Your task to perform on an android device: set the timer Image 0: 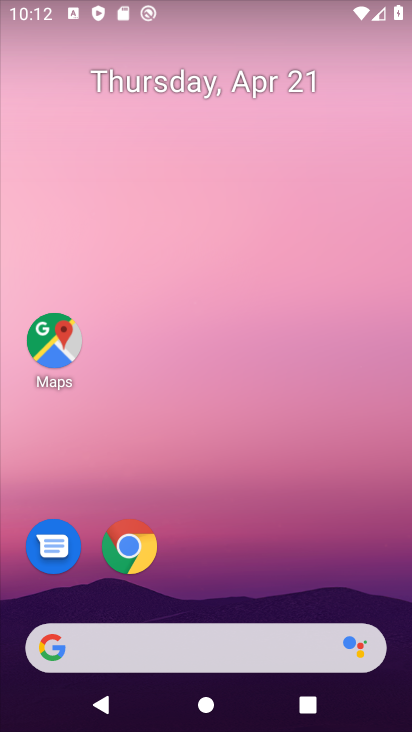
Step 0: drag from (364, 591) to (310, 50)
Your task to perform on an android device: set the timer Image 1: 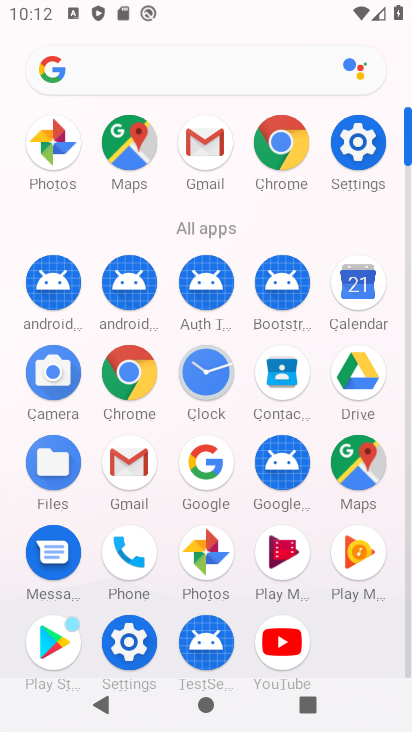
Step 1: click (406, 659)
Your task to perform on an android device: set the timer Image 2: 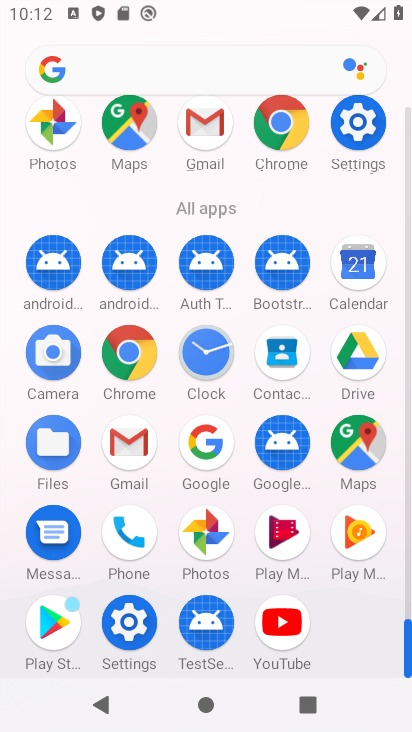
Step 2: click (209, 345)
Your task to perform on an android device: set the timer Image 3: 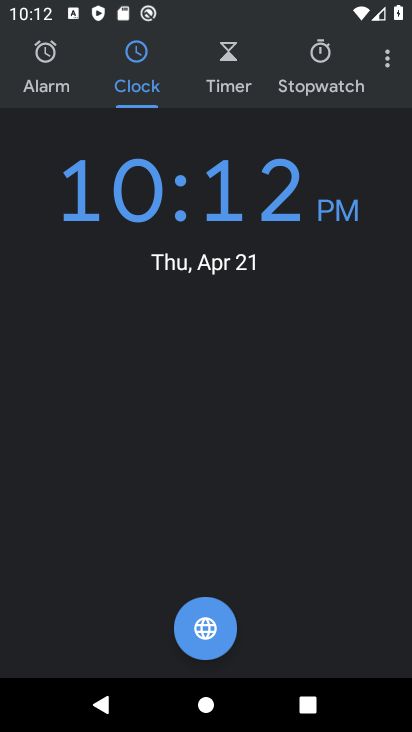
Step 3: click (226, 50)
Your task to perform on an android device: set the timer Image 4: 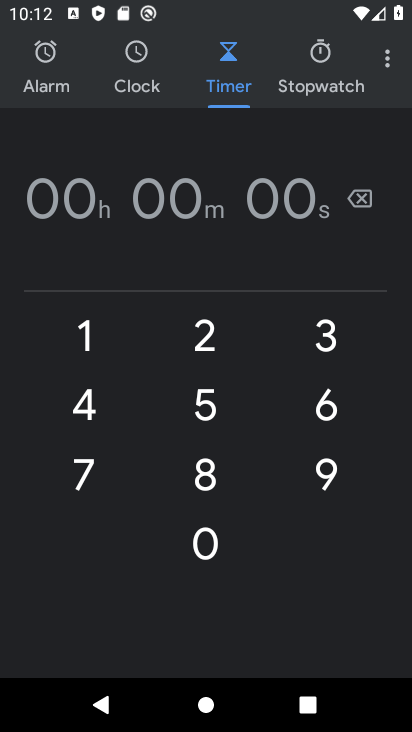
Step 4: click (84, 331)
Your task to perform on an android device: set the timer Image 5: 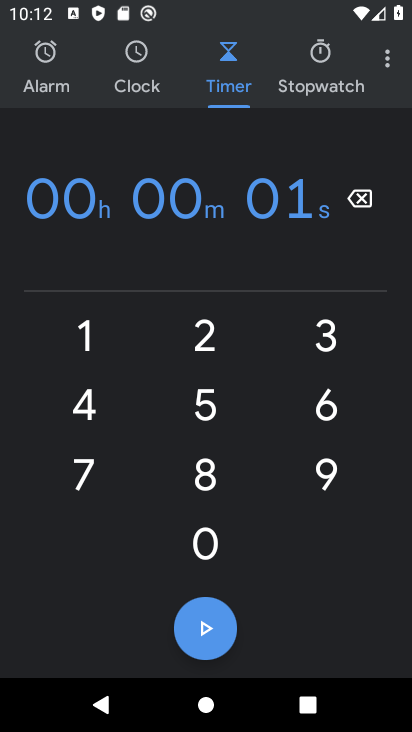
Step 5: click (329, 328)
Your task to perform on an android device: set the timer Image 6: 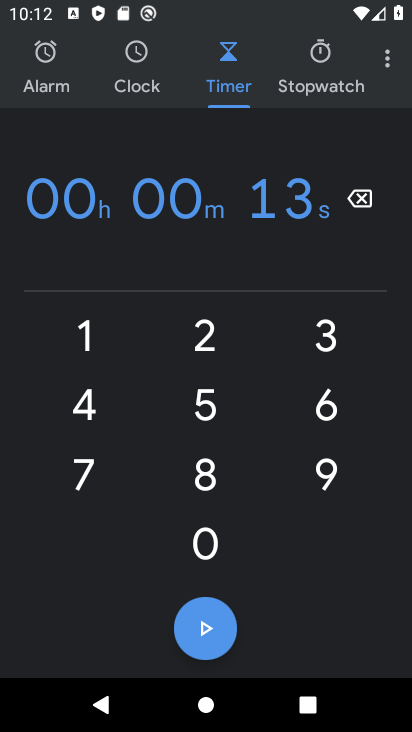
Step 6: click (204, 533)
Your task to perform on an android device: set the timer Image 7: 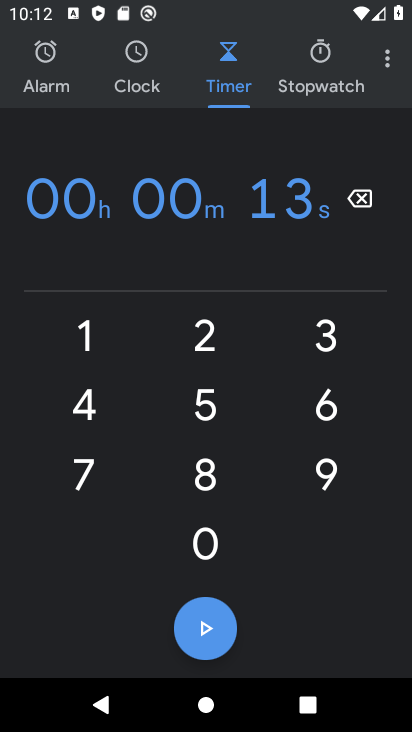
Step 7: click (204, 533)
Your task to perform on an android device: set the timer Image 8: 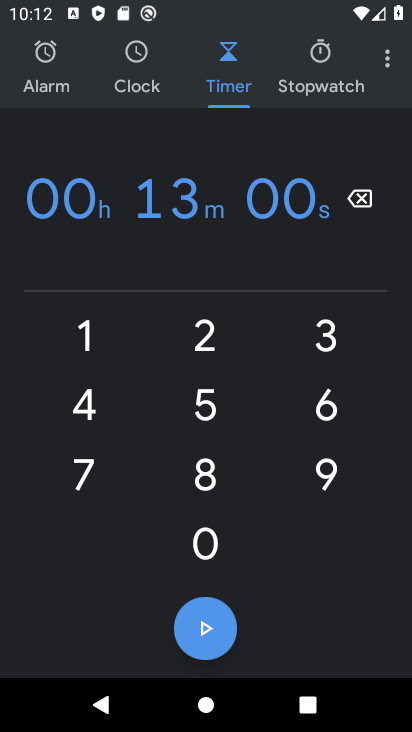
Step 8: click (204, 533)
Your task to perform on an android device: set the timer Image 9: 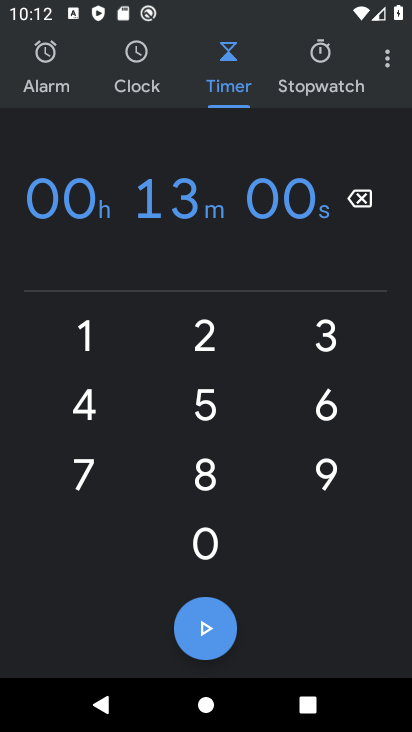
Step 9: click (204, 533)
Your task to perform on an android device: set the timer Image 10: 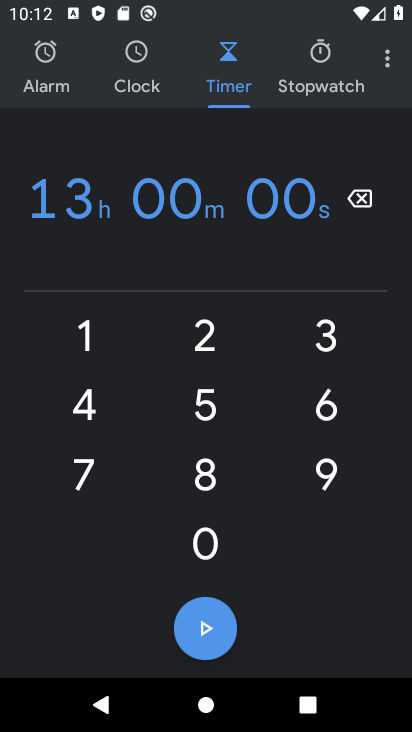
Step 10: task complete